Your task to perform on an android device: add a contact Image 0: 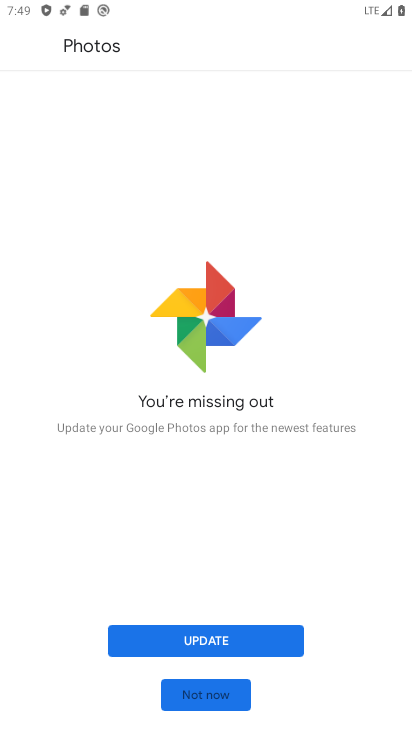
Step 0: press home button
Your task to perform on an android device: add a contact Image 1: 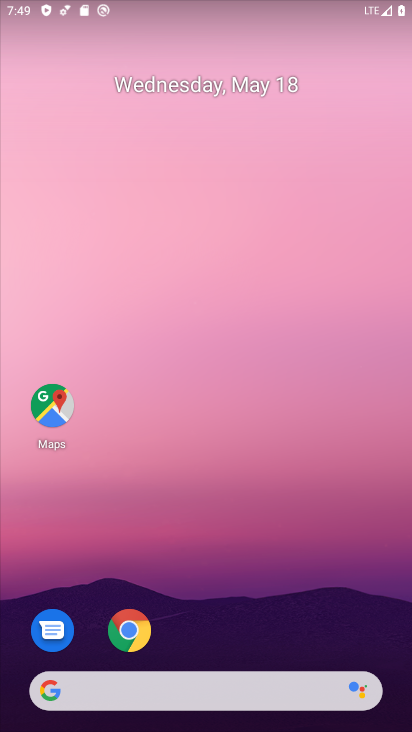
Step 1: drag from (250, 501) to (159, 3)
Your task to perform on an android device: add a contact Image 2: 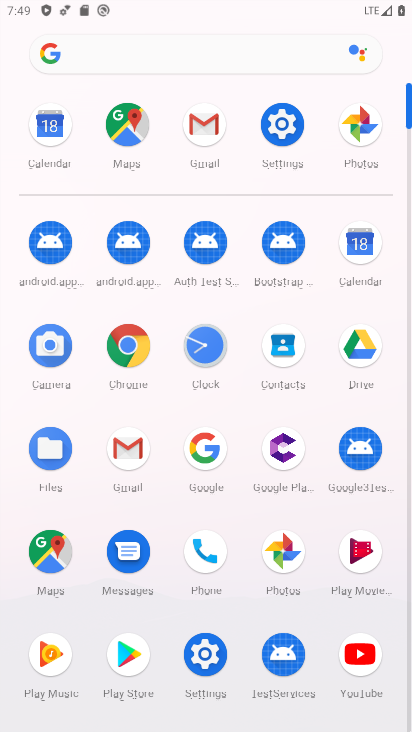
Step 2: click (286, 348)
Your task to perform on an android device: add a contact Image 3: 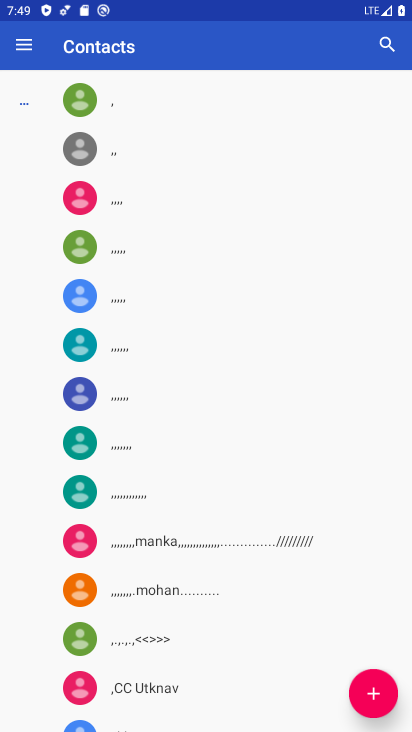
Step 3: click (368, 684)
Your task to perform on an android device: add a contact Image 4: 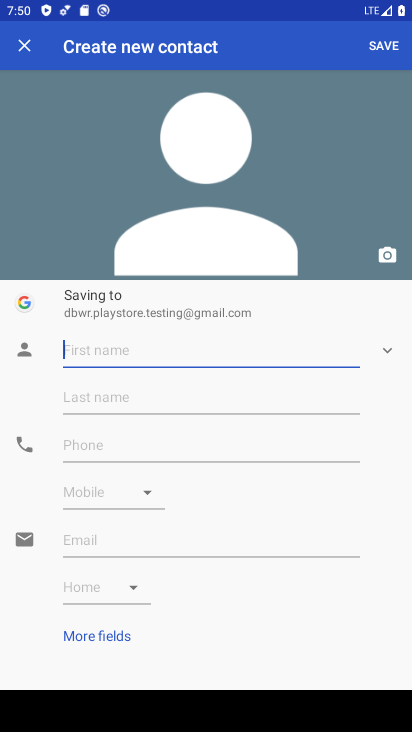
Step 4: type "sdfg"
Your task to perform on an android device: add a contact Image 5: 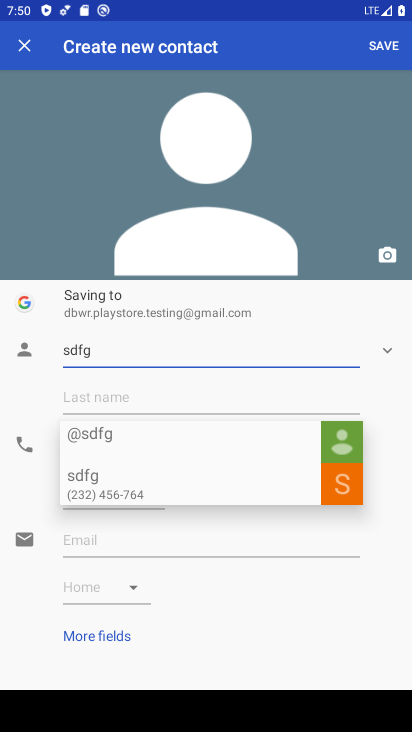
Step 5: click (94, 439)
Your task to perform on an android device: add a contact Image 6: 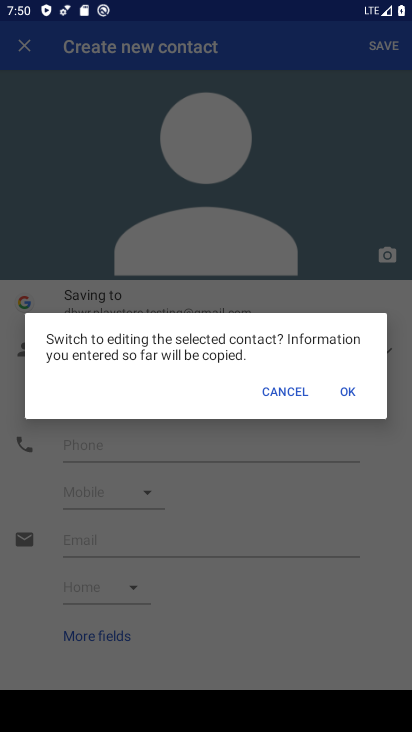
Step 6: click (288, 392)
Your task to perform on an android device: add a contact Image 7: 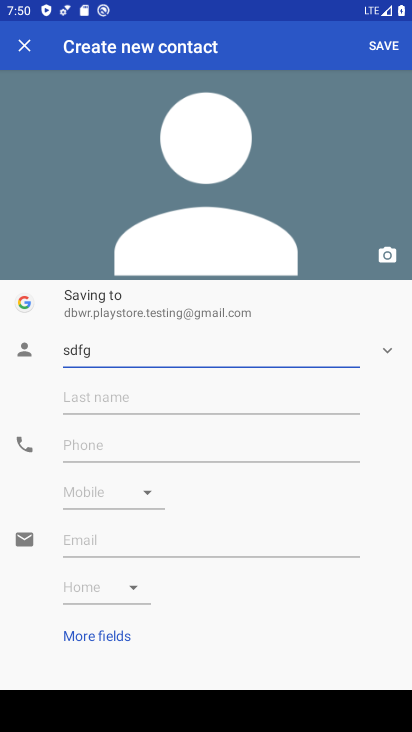
Step 7: click (92, 441)
Your task to perform on an android device: add a contact Image 8: 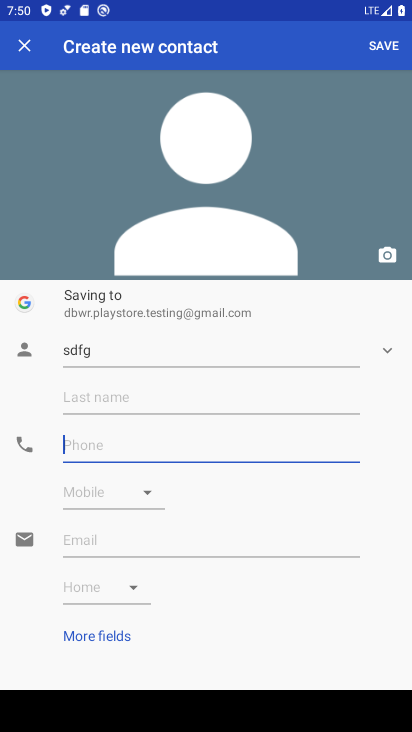
Step 8: type "5678"
Your task to perform on an android device: add a contact Image 9: 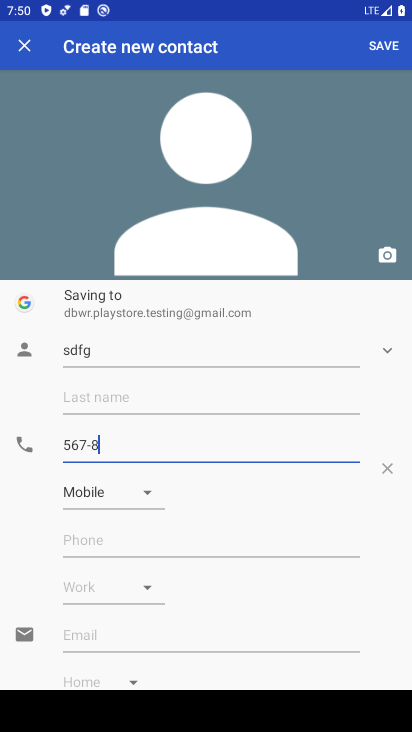
Step 9: click (371, 46)
Your task to perform on an android device: add a contact Image 10: 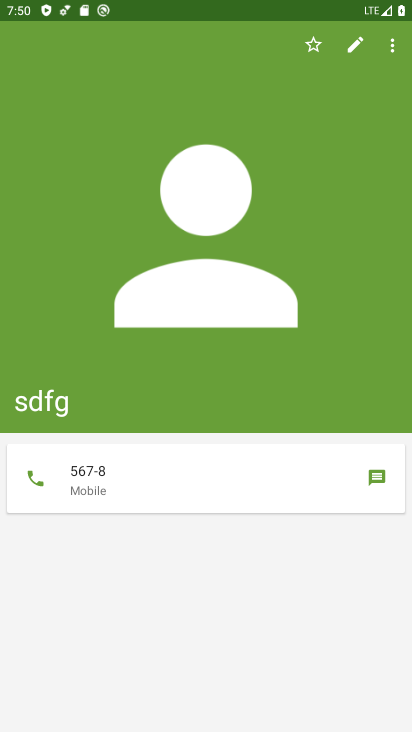
Step 10: task complete